Your task to perform on an android device: see sites visited before in the chrome app Image 0: 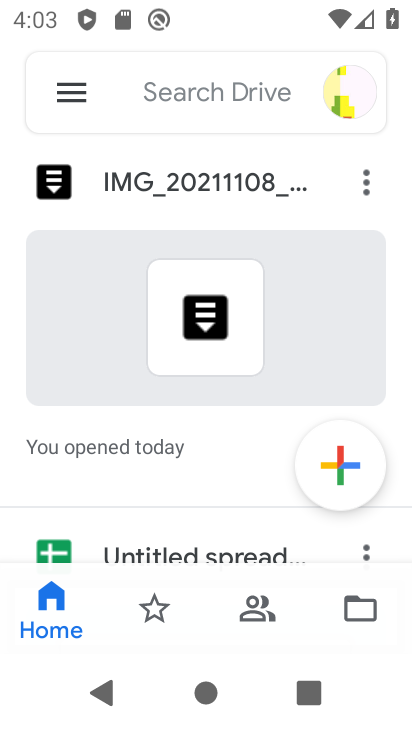
Step 0: press home button
Your task to perform on an android device: see sites visited before in the chrome app Image 1: 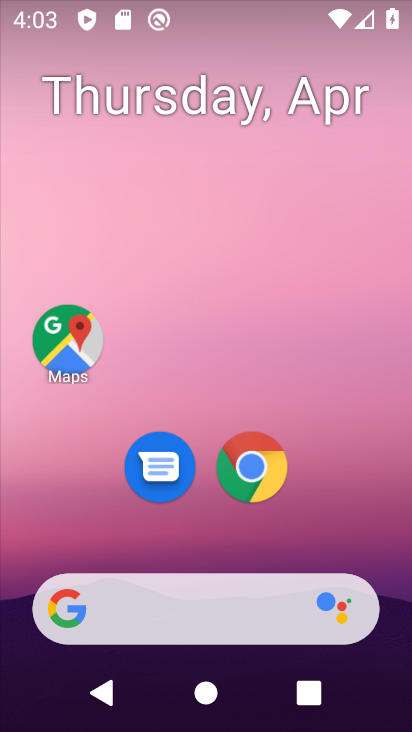
Step 1: click (278, 480)
Your task to perform on an android device: see sites visited before in the chrome app Image 2: 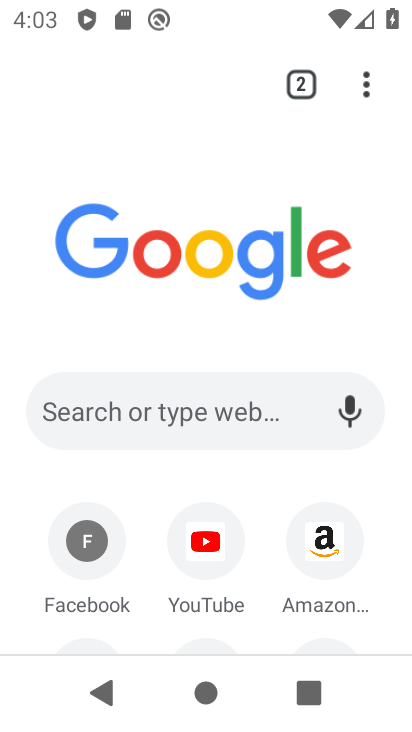
Step 2: click (371, 84)
Your task to perform on an android device: see sites visited before in the chrome app Image 3: 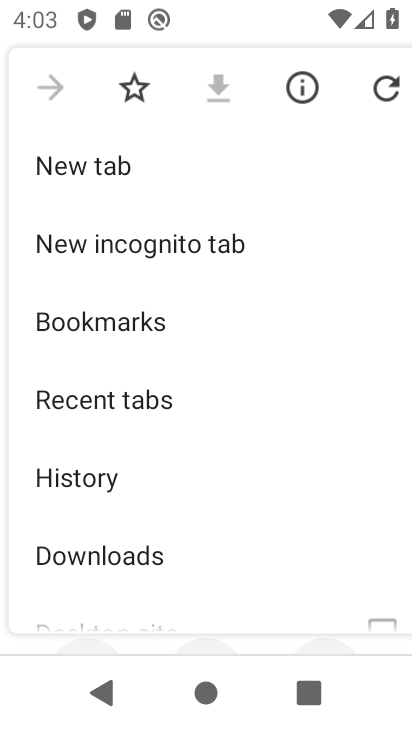
Step 3: click (110, 474)
Your task to perform on an android device: see sites visited before in the chrome app Image 4: 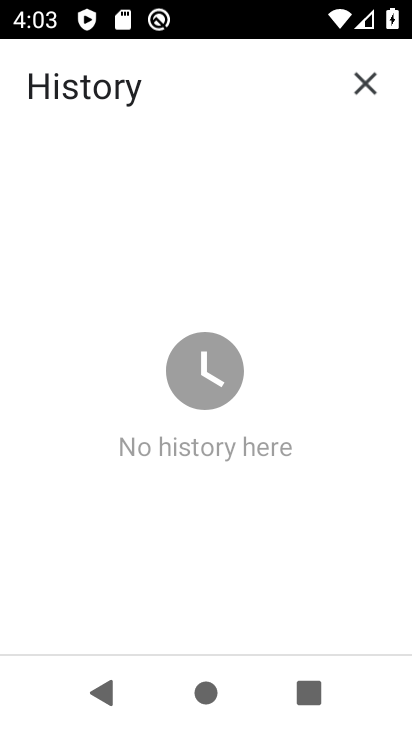
Step 4: task complete